Your task to perform on an android device: Go to display settings Image 0: 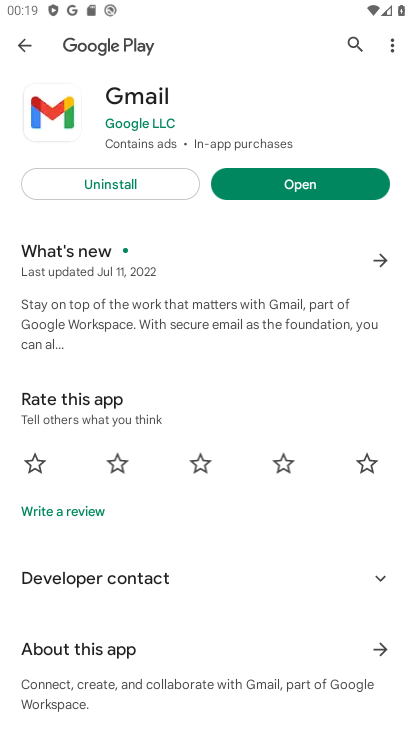
Step 0: press home button
Your task to perform on an android device: Go to display settings Image 1: 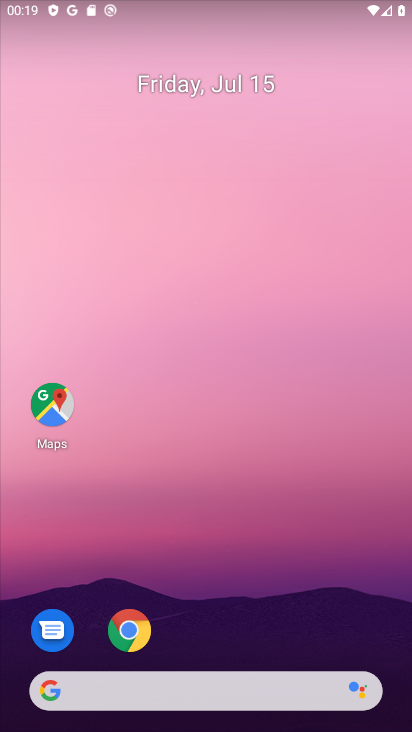
Step 1: drag from (239, 653) to (189, 51)
Your task to perform on an android device: Go to display settings Image 2: 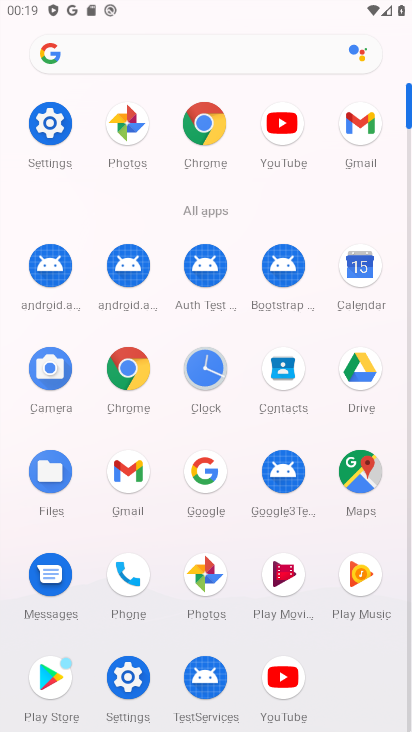
Step 2: click (53, 147)
Your task to perform on an android device: Go to display settings Image 3: 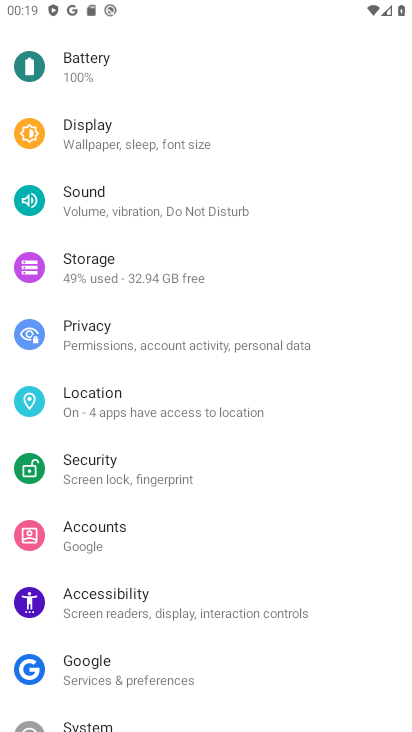
Step 3: click (191, 133)
Your task to perform on an android device: Go to display settings Image 4: 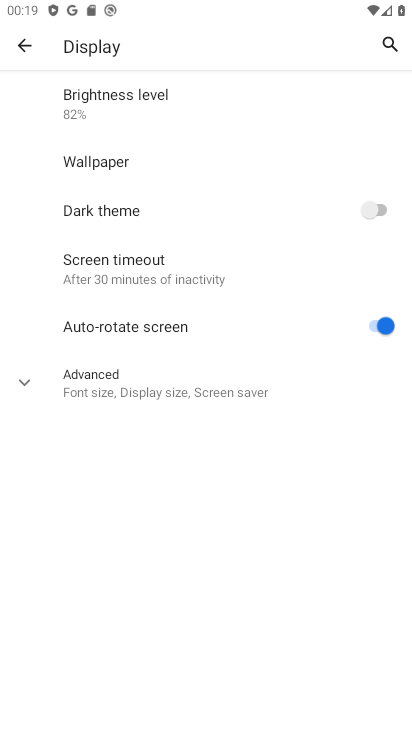
Step 4: task complete